Your task to perform on an android device: turn off sleep mode Image 0: 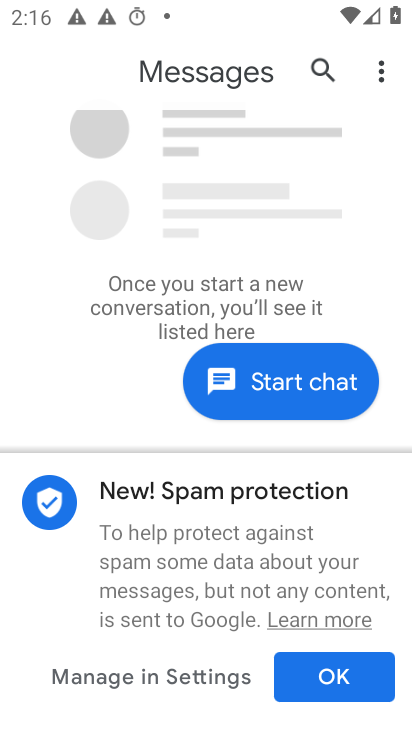
Step 0: press home button
Your task to perform on an android device: turn off sleep mode Image 1: 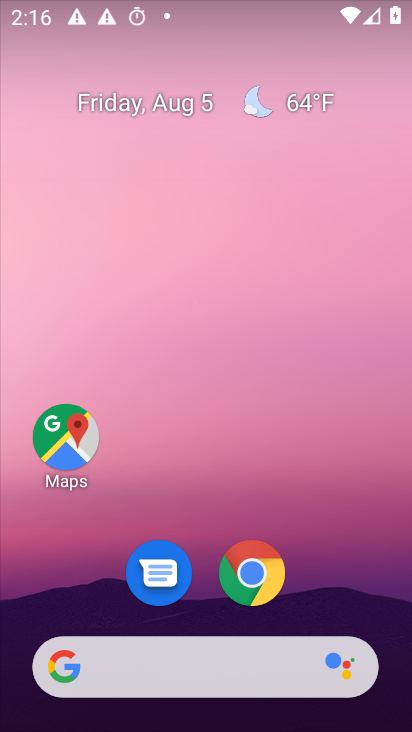
Step 1: drag from (350, 597) to (348, 153)
Your task to perform on an android device: turn off sleep mode Image 2: 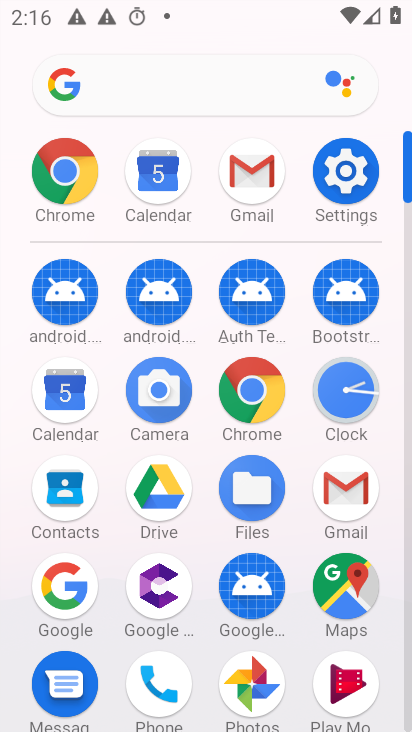
Step 2: click (357, 180)
Your task to perform on an android device: turn off sleep mode Image 3: 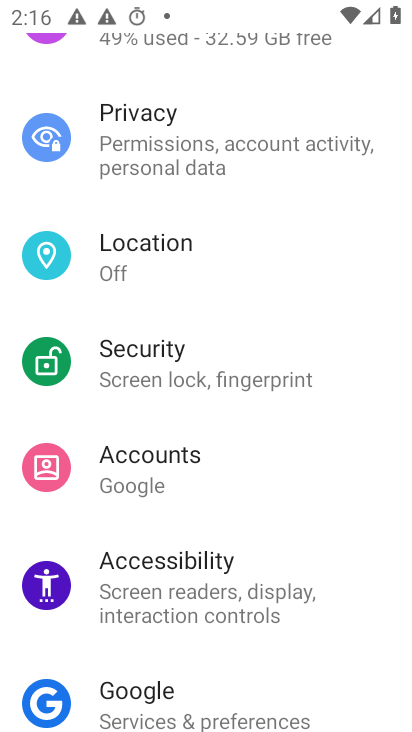
Step 3: drag from (357, 218) to (358, 257)
Your task to perform on an android device: turn off sleep mode Image 4: 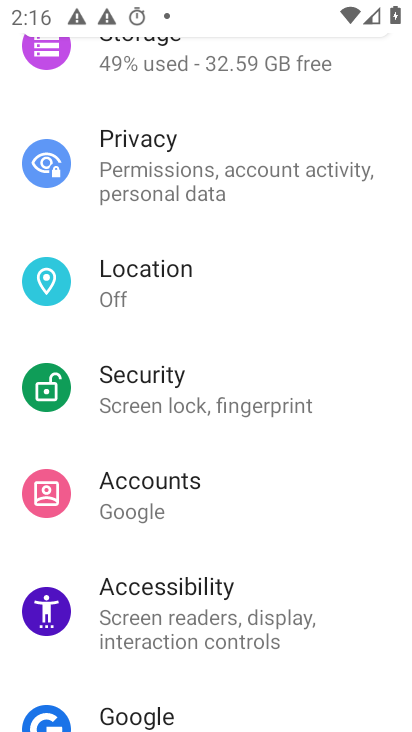
Step 4: drag from (347, 196) to (344, 288)
Your task to perform on an android device: turn off sleep mode Image 5: 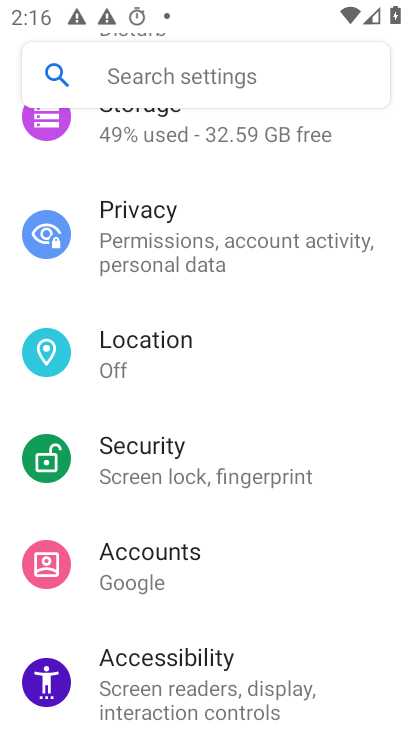
Step 5: drag from (361, 184) to (363, 284)
Your task to perform on an android device: turn off sleep mode Image 6: 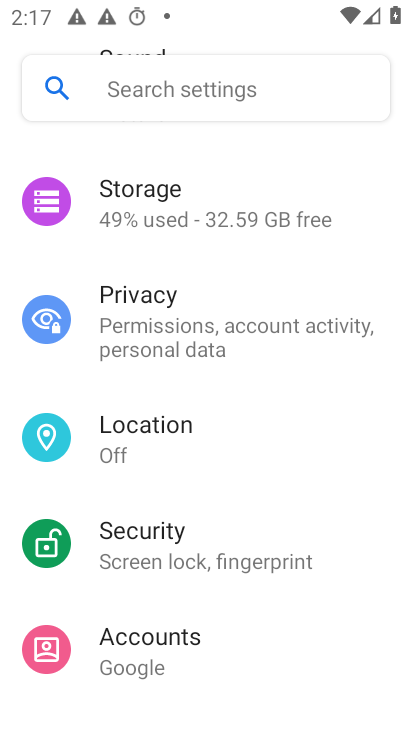
Step 6: drag from (360, 176) to (361, 292)
Your task to perform on an android device: turn off sleep mode Image 7: 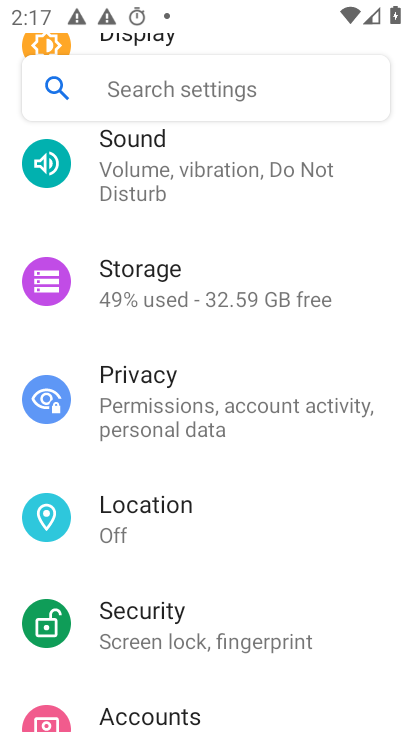
Step 7: drag from (378, 212) to (379, 333)
Your task to perform on an android device: turn off sleep mode Image 8: 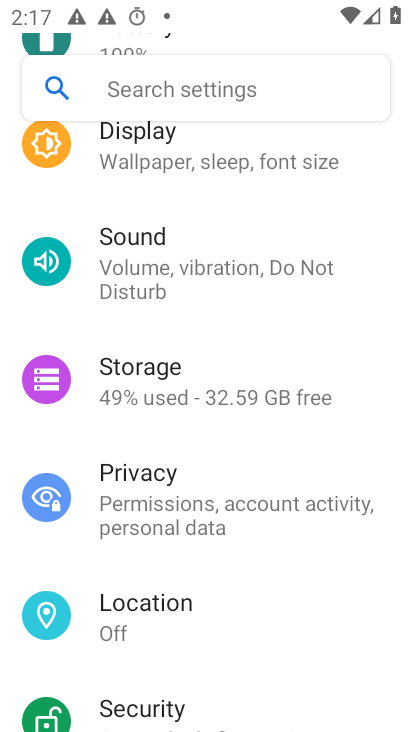
Step 8: drag from (375, 267) to (367, 353)
Your task to perform on an android device: turn off sleep mode Image 9: 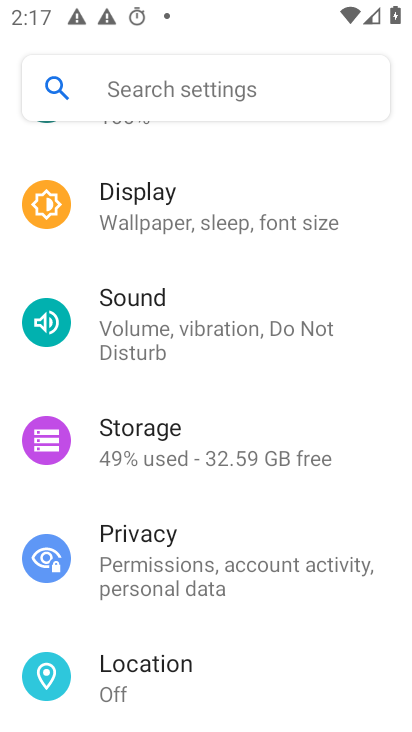
Step 9: drag from (386, 281) to (384, 394)
Your task to perform on an android device: turn off sleep mode Image 10: 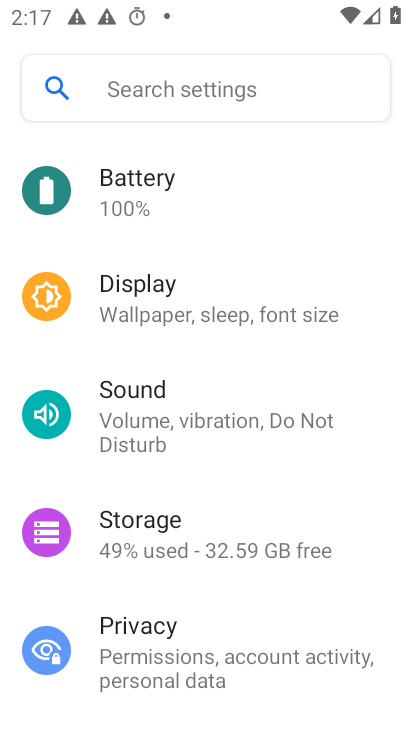
Step 10: drag from (384, 217) to (381, 352)
Your task to perform on an android device: turn off sleep mode Image 11: 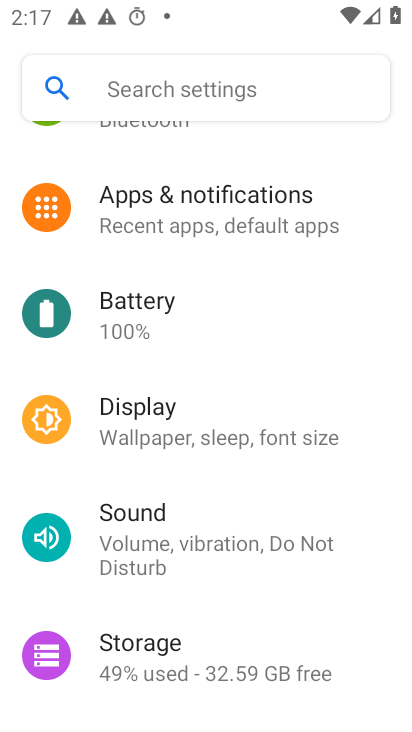
Step 11: drag from (379, 191) to (379, 378)
Your task to perform on an android device: turn off sleep mode Image 12: 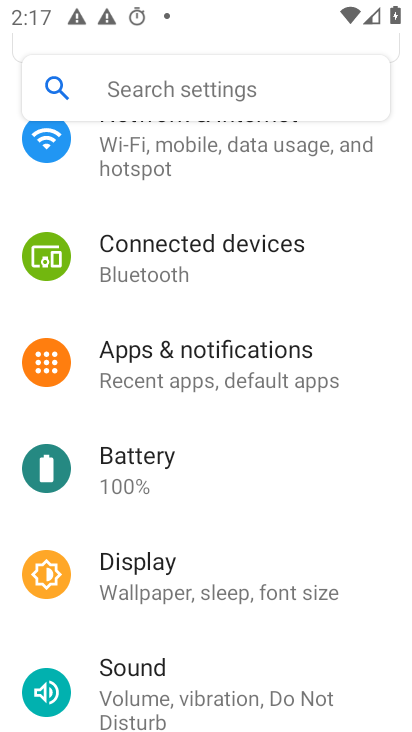
Step 12: click (173, 573)
Your task to perform on an android device: turn off sleep mode Image 13: 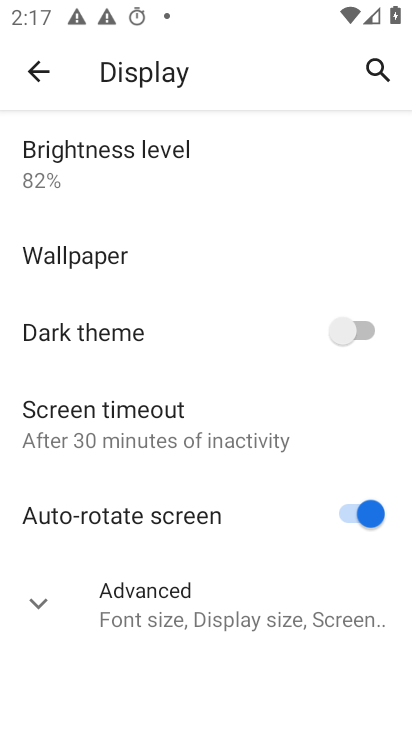
Step 13: click (161, 597)
Your task to perform on an android device: turn off sleep mode Image 14: 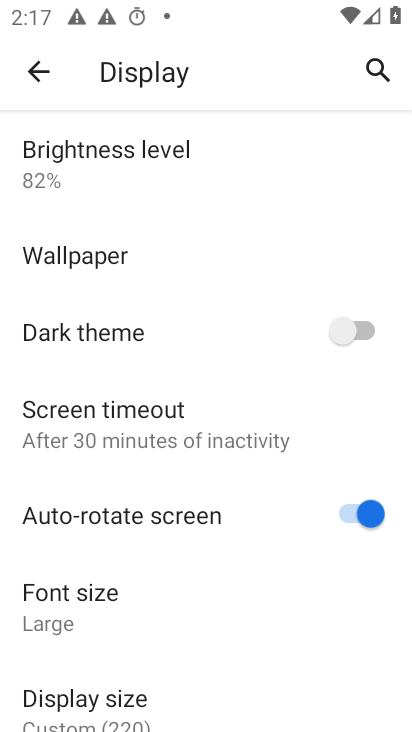
Step 14: task complete